Your task to perform on an android device: Do I have any events today? Image 0: 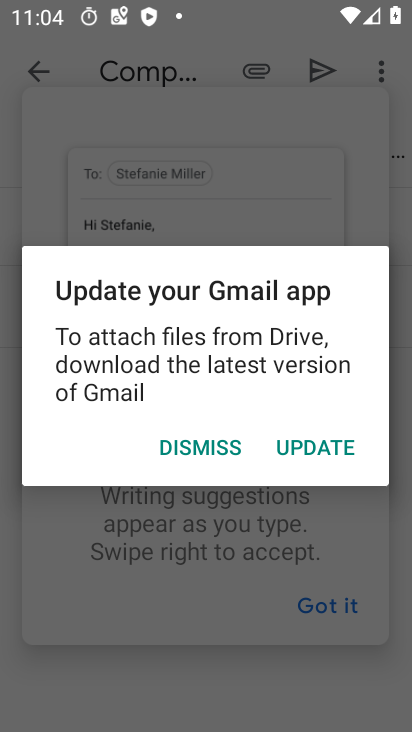
Step 0: press home button
Your task to perform on an android device: Do I have any events today? Image 1: 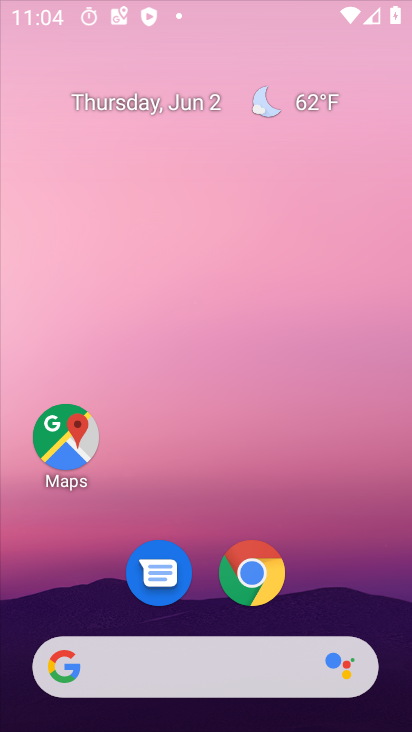
Step 1: drag from (234, 655) to (299, 38)
Your task to perform on an android device: Do I have any events today? Image 2: 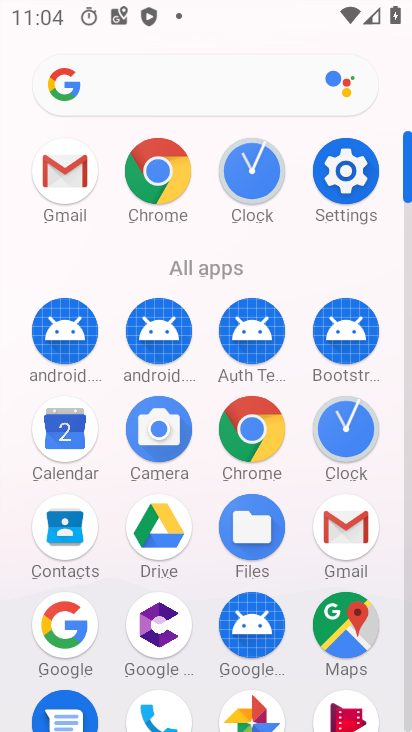
Step 2: click (80, 443)
Your task to perform on an android device: Do I have any events today? Image 3: 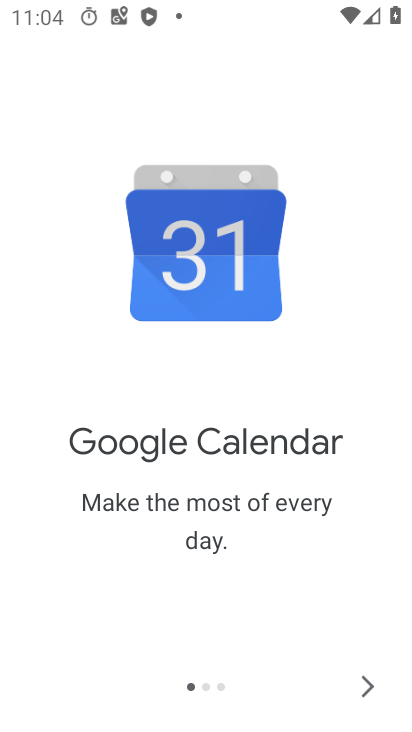
Step 3: click (381, 687)
Your task to perform on an android device: Do I have any events today? Image 4: 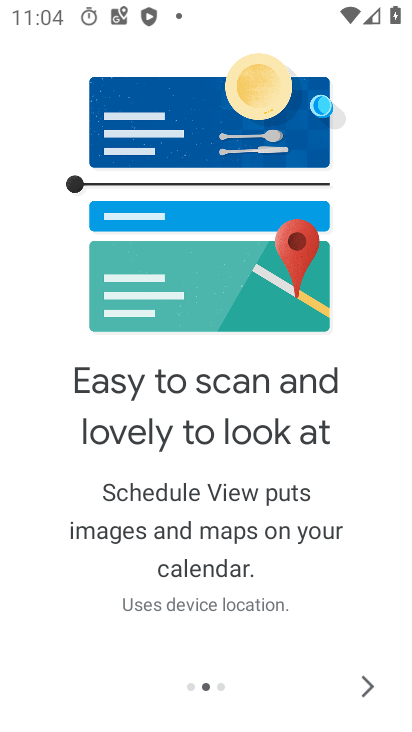
Step 4: click (381, 687)
Your task to perform on an android device: Do I have any events today? Image 5: 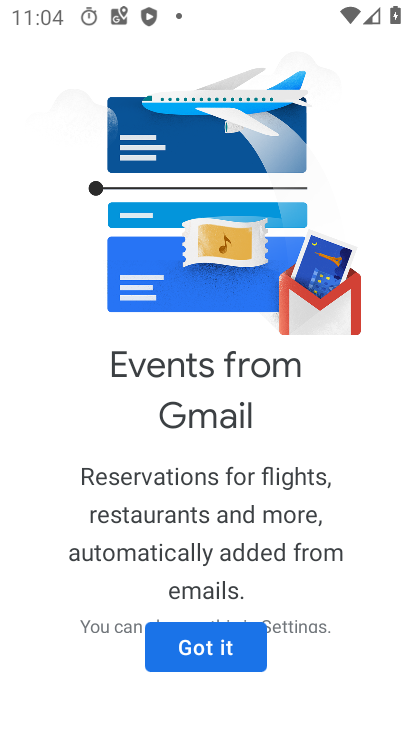
Step 5: click (214, 656)
Your task to perform on an android device: Do I have any events today? Image 6: 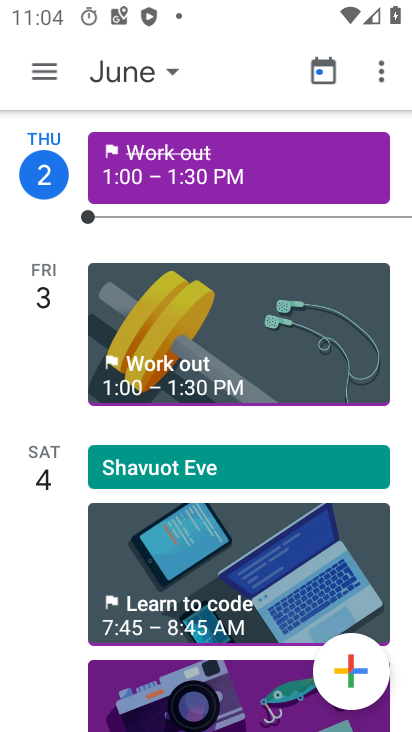
Step 6: click (181, 70)
Your task to perform on an android device: Do I have any events today? Image 7: 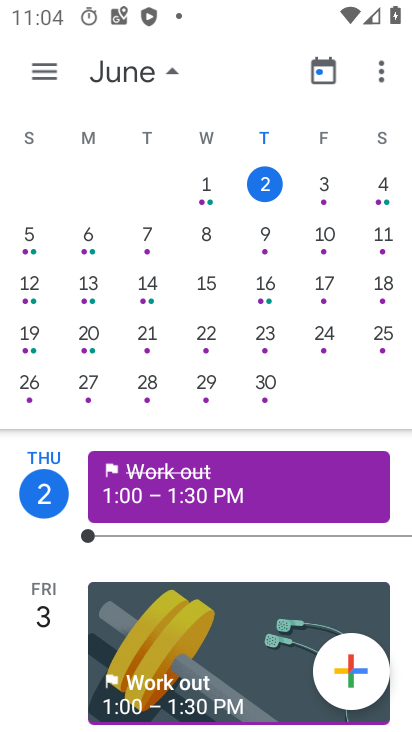
Step 7: task complete